Your task to perform on an android device: Go to wifi settings Image 0: 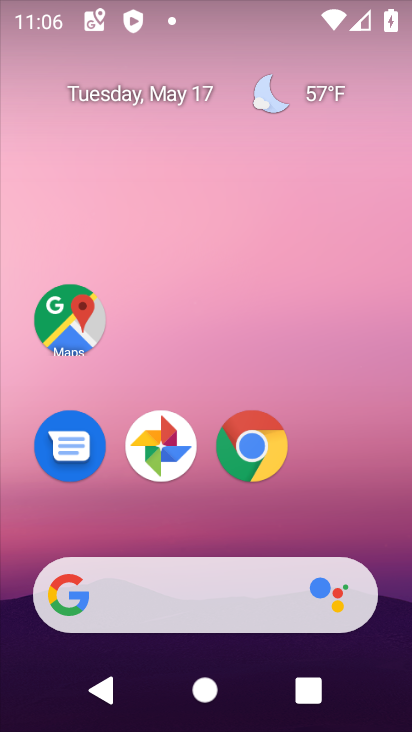
Step 0: drag from (171, 595) to (158, 59)
Your task to perform on an android device: Go to wifi settings Image 1: 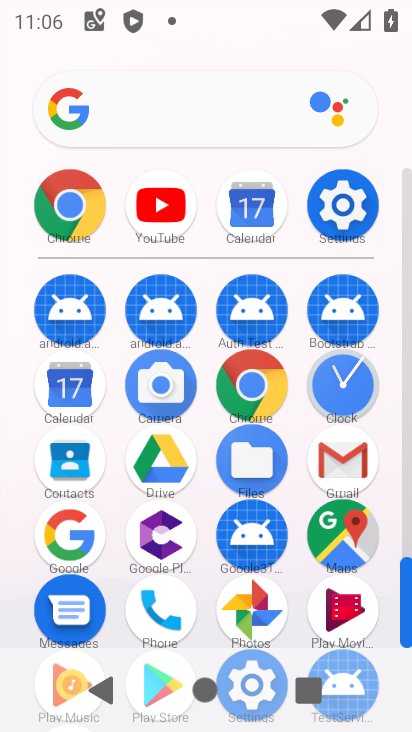
Step 1: click (346, 190)
Your task to perform on an android device: Go to wifi settings Image 2: 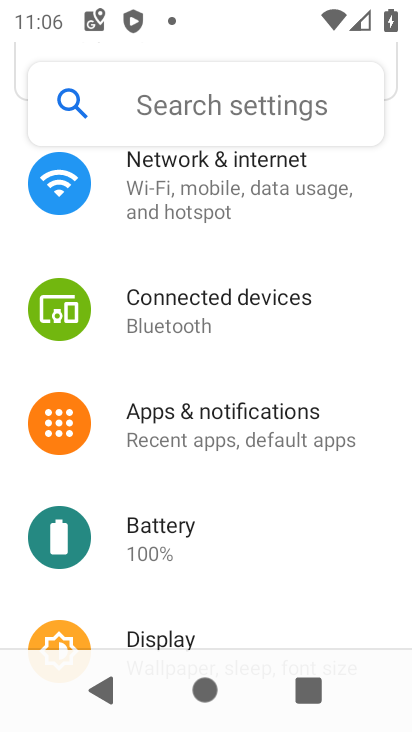
Step 2: click (202, 190)
Your task to perform on an android device: Go to wifi settings Image 3: 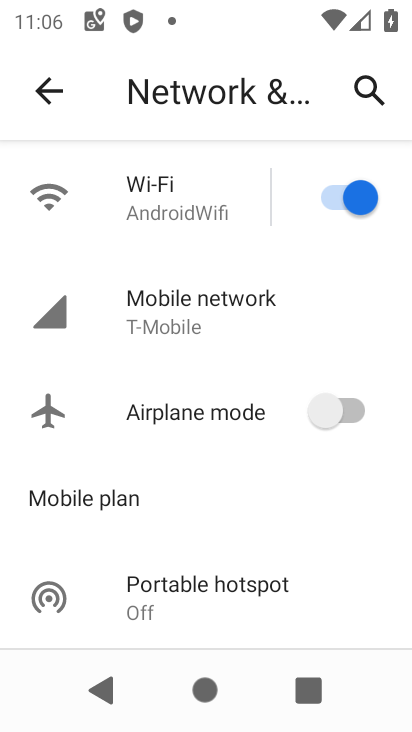
Step 3: click (140, 211)
Your task to perform on an android device: Go to wifi settings Image 4: 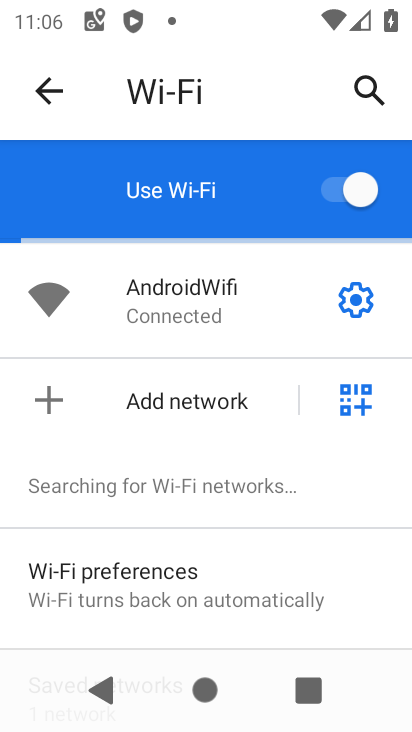
Step 4: task complete